Your task to perform on an android device: remove spam from my inbox in the gmail app Image 0: 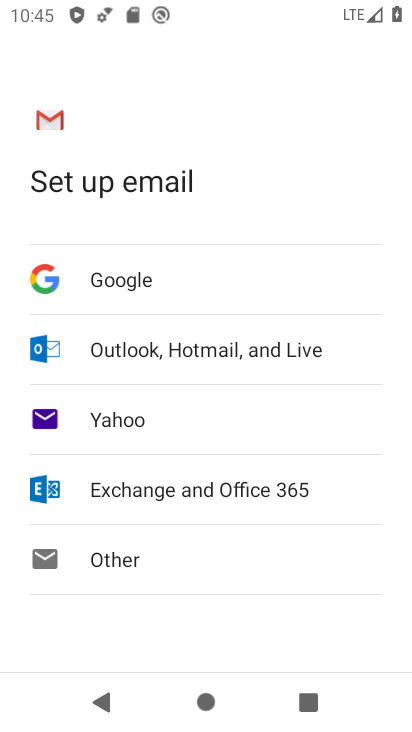
Step 0: press home button
Your task to perform on an android device: remove spam from my inbox in the gmail app Image 1: 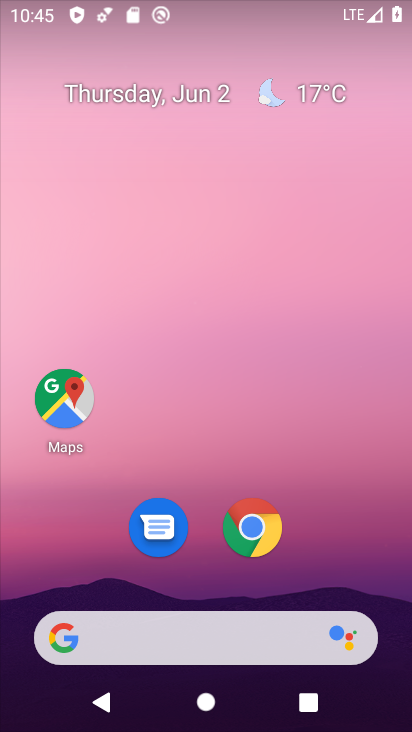
Step 1: drag from (204, 572) to (222, 158)
Your task to perform on an android device: remove spam from my inbox in the gmail app Image 2: 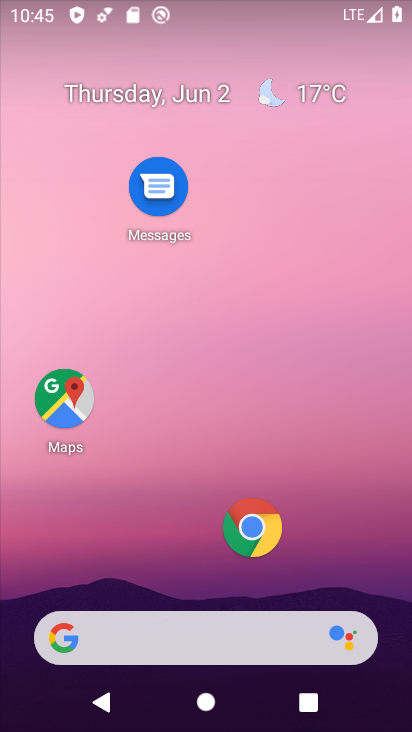
Step 2: drag from (219, 211) to (224, 101)
Your task to perform on an android device: remove spam from my inbox in the gmail app Image 3: 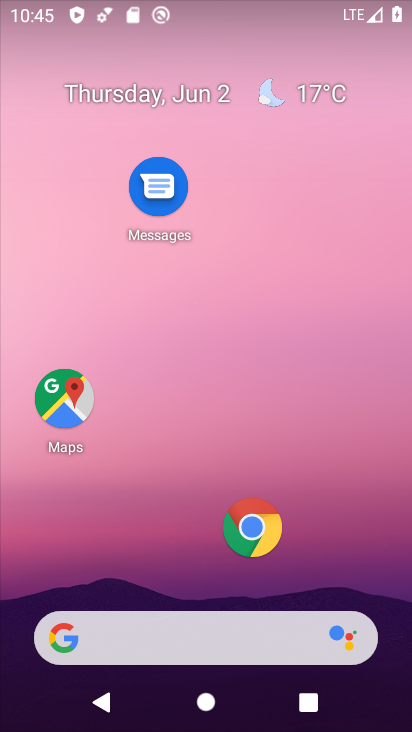
Step 3: drag from (319, 569) to (348, 116)
Your task to perform on an android device: remove spam from my inbox in the gmail app Image 4: 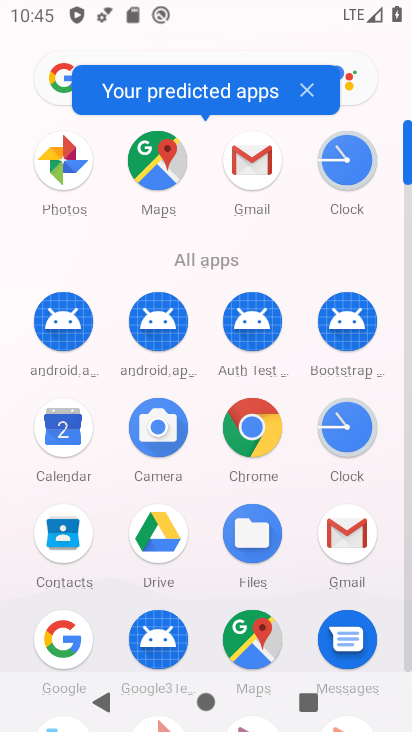
Step 4: click (245, 155)
Your task to perform on an android device: remove spam from my inbox in the gmail app Image 5: 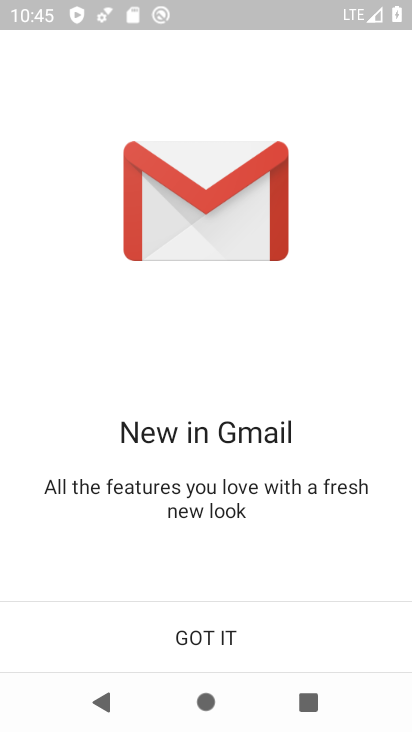
Step 5: click (215, 645)
Your task to perform on an android device: remove spam from my inbox in the gmail app Image 6: 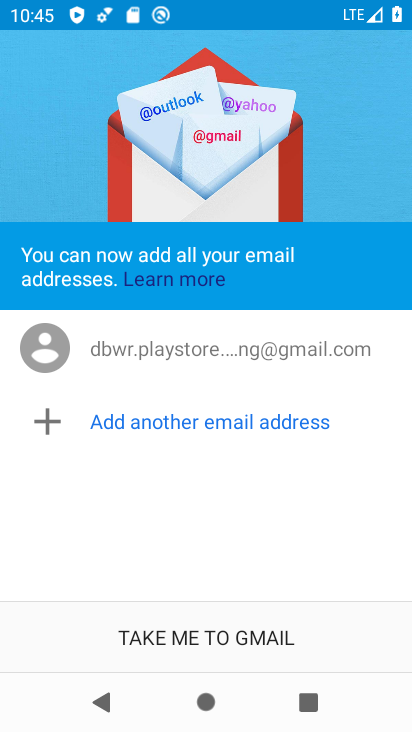
Step 6: click (208, 652)
Your task to perform on an android device: remove spam from my inbox in the gmail app Image 7: 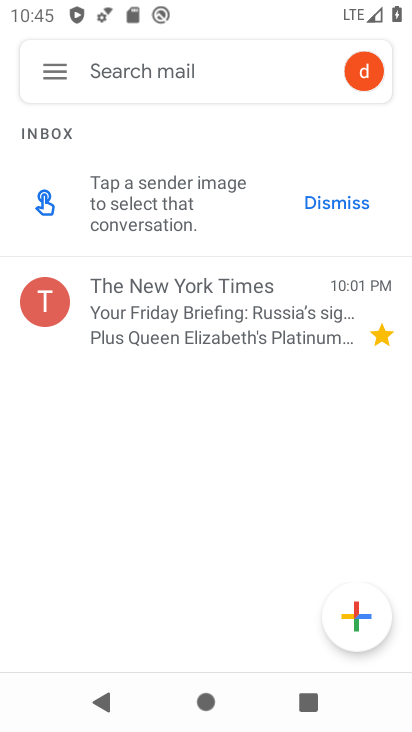
Step 7: click (53, 62)
Your task to perform on an android device: remove spam from my inbox in the gmail app Image 8: 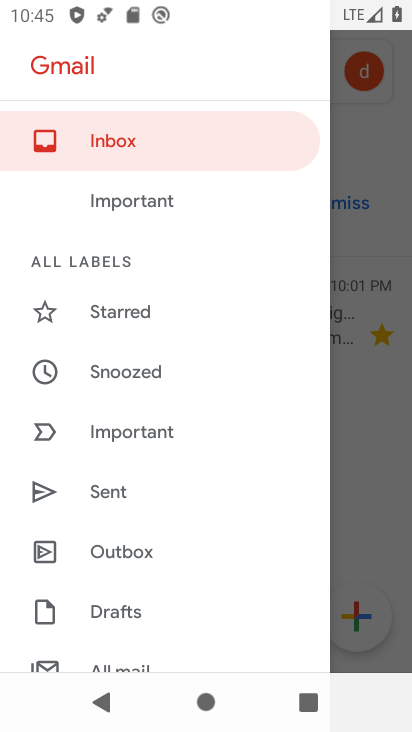
Step 8: drag from (147, 621) to (148, 268)
Your task to perform on an android device: remove spam from my inbox in the gmail app Image 9: 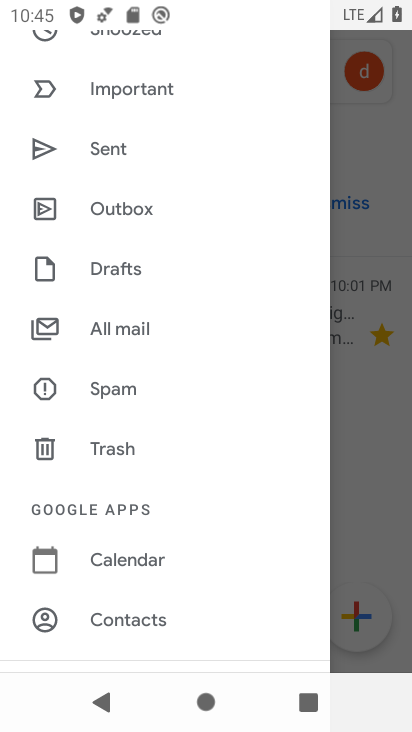
Step 9: click (117, 384)
Your task to perform on an android device: remove spam from my inbox in the gmail app Image 10: 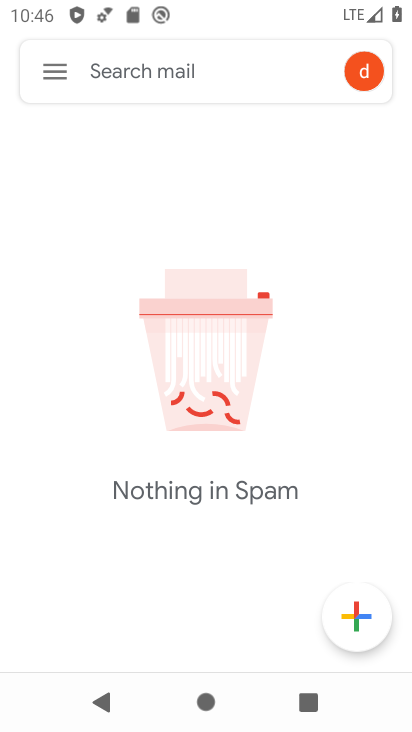
Step 10: task complete